Your task to perform on an android device: Empty the shopping cart on walmart. Add "macbook air" to the cart on walmart Image 0: 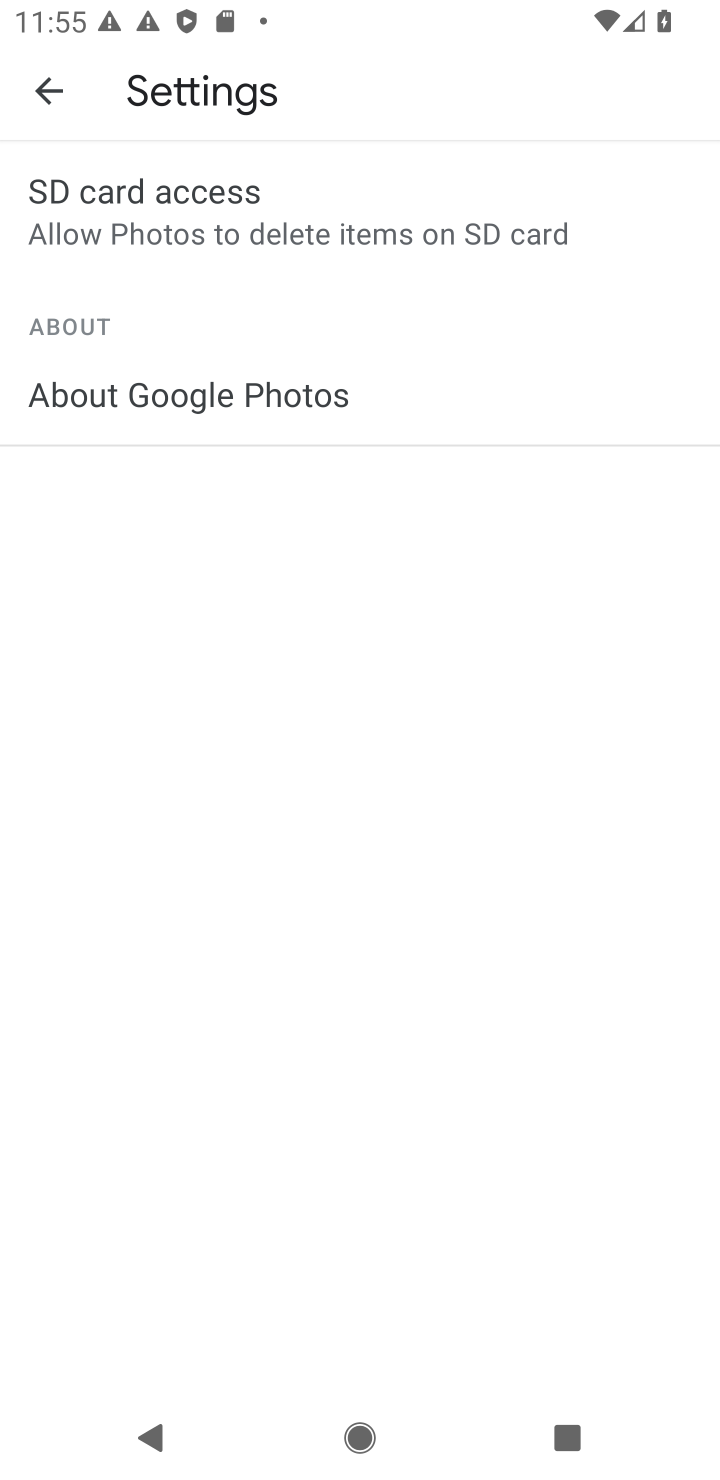
Step 0: press home button
Your task to perform on an android device: Empty the shopping cart on walmart. Add "macbook air" to the cart on walmart Image 1: 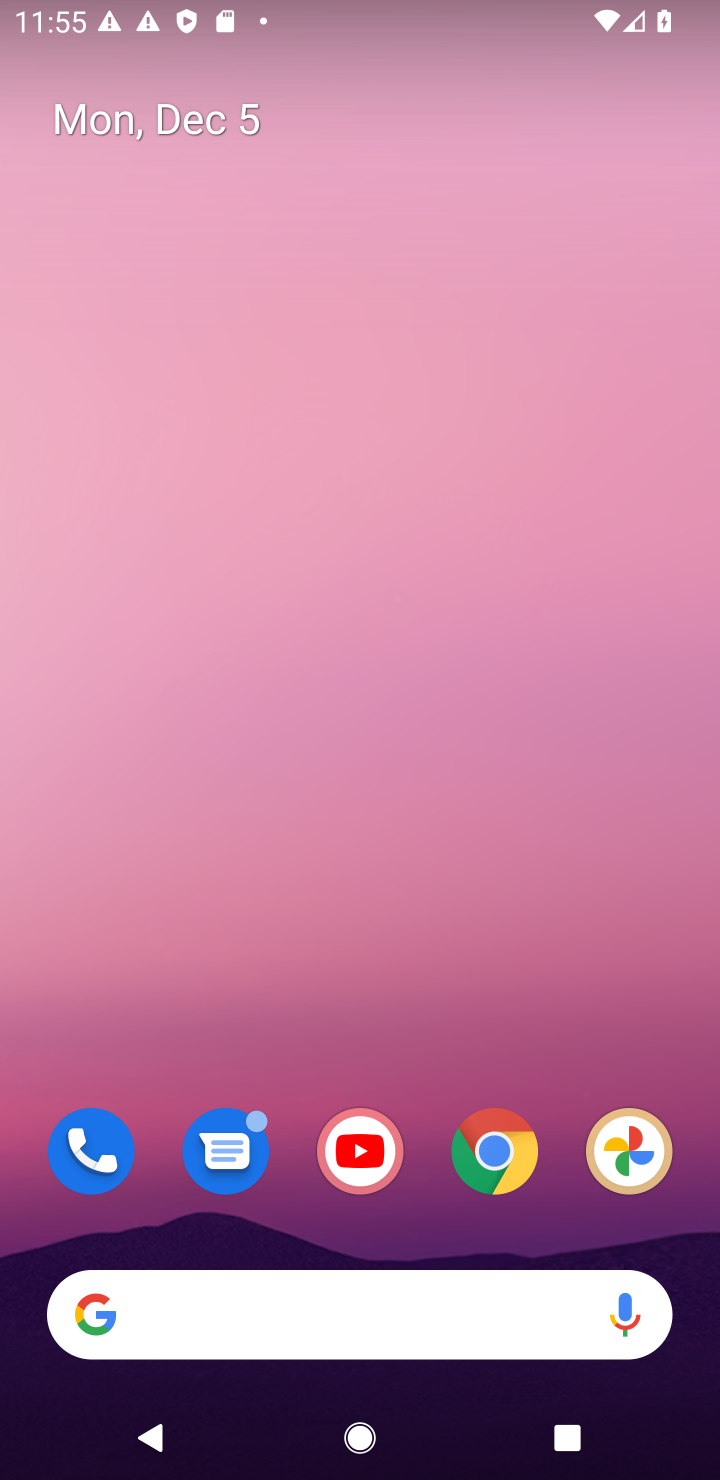
Step 1: click (497, 1149)
Your task to perform on an android device: Empty the shopping cart on walmart. Add "macbook air" to the cart on walmart Image 2: 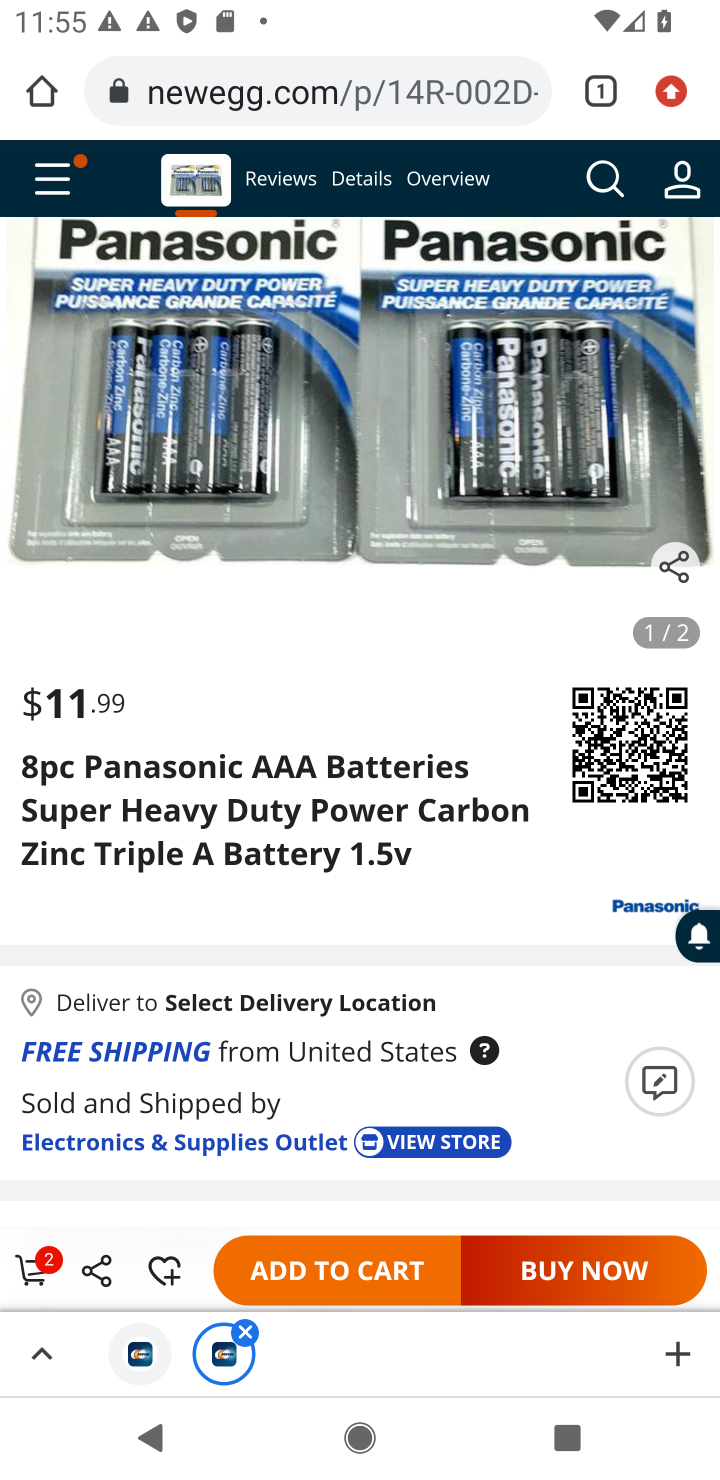
Step 2: click (224, 104)
Your task to perform on an android device: Empty the shopping cart on walmart. Add "macbook air" to the cart on walmart Image 3: 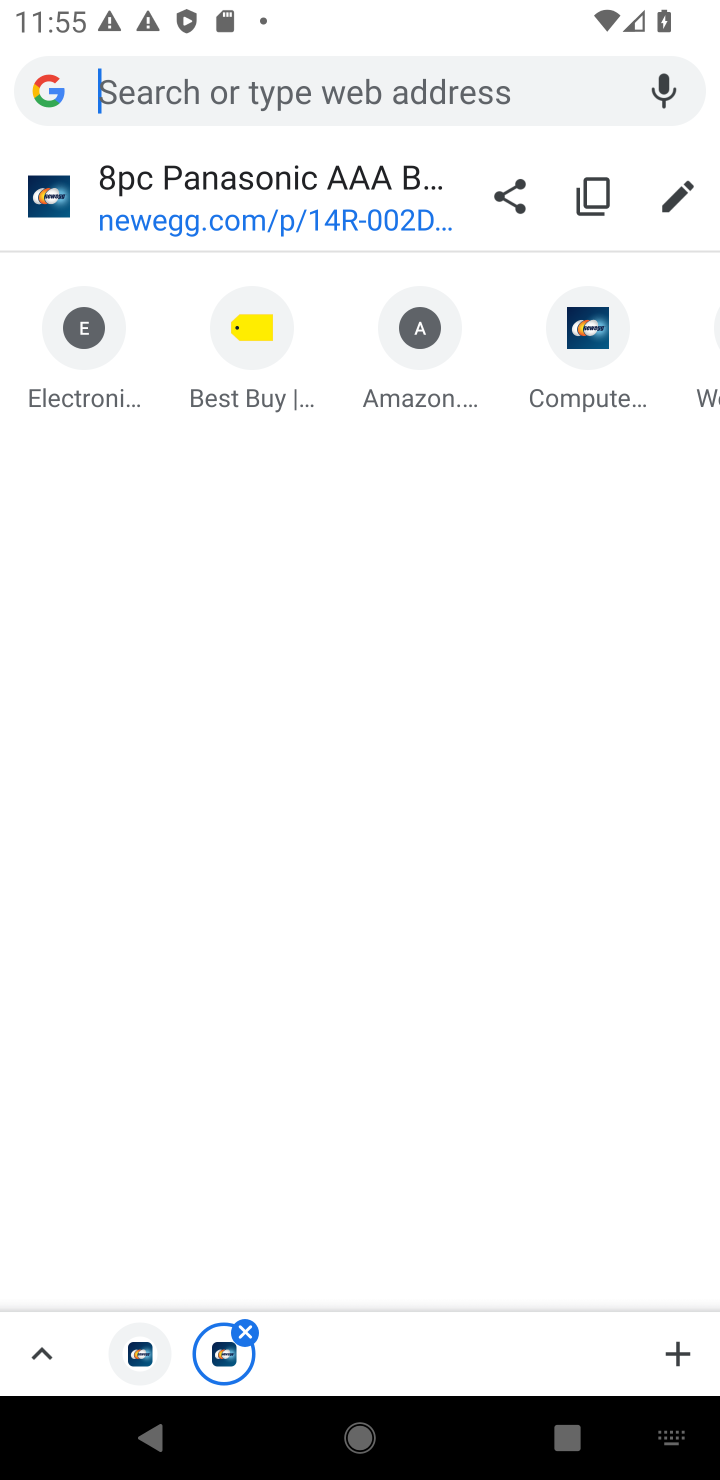
Step 3: type "walmart.com"
Your task to perform on an android device: Empty the shopping cart on walmart. Add "macbook air" to the cart on walmart Image 4: 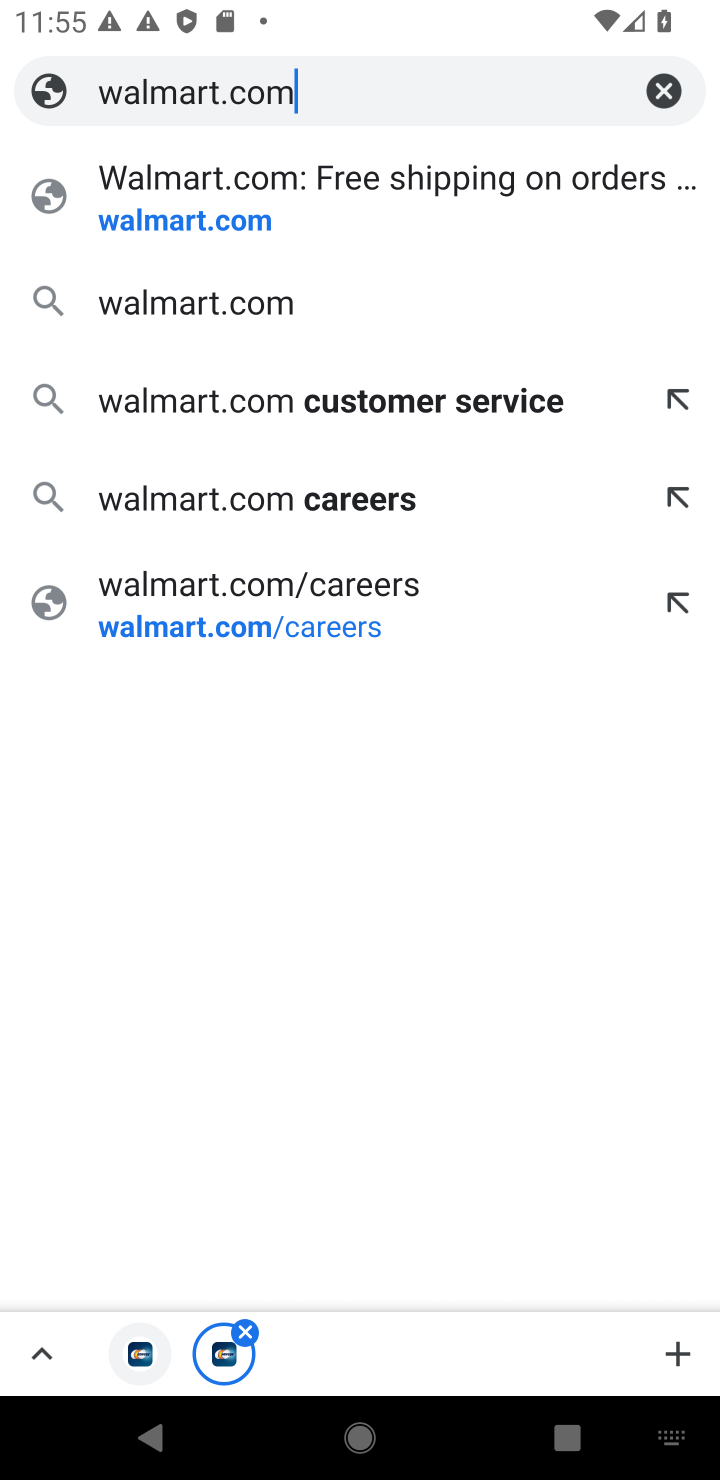
Step 4: click (141, 206)
Your task to perform on an android device: Empty the shopping cart on walmart. Add "macbook air" to the cart on walmart Image 5: 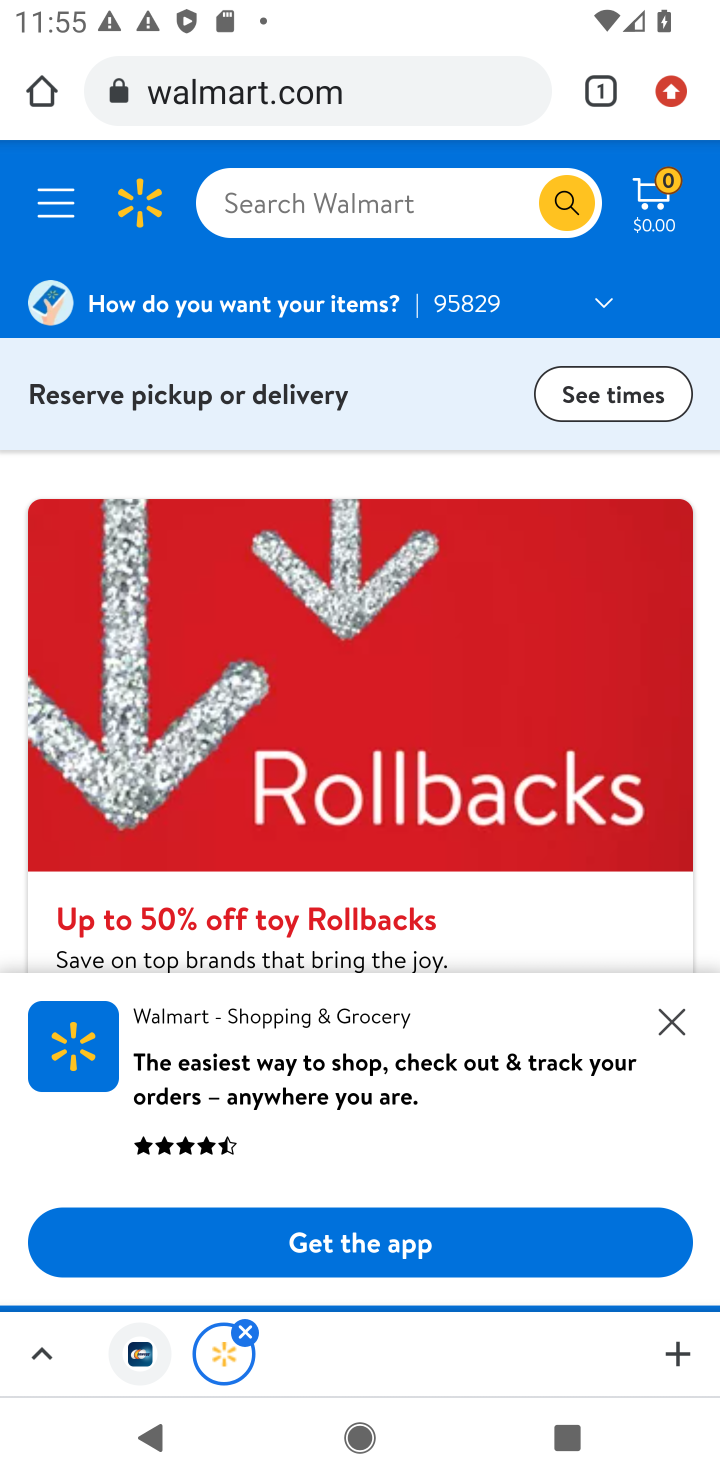
Step 5: click (646, 202)
Your task to perform on an android device: Empty the shopping cart on walmart. Add "macbook air" to the cart on walmart Image 6: 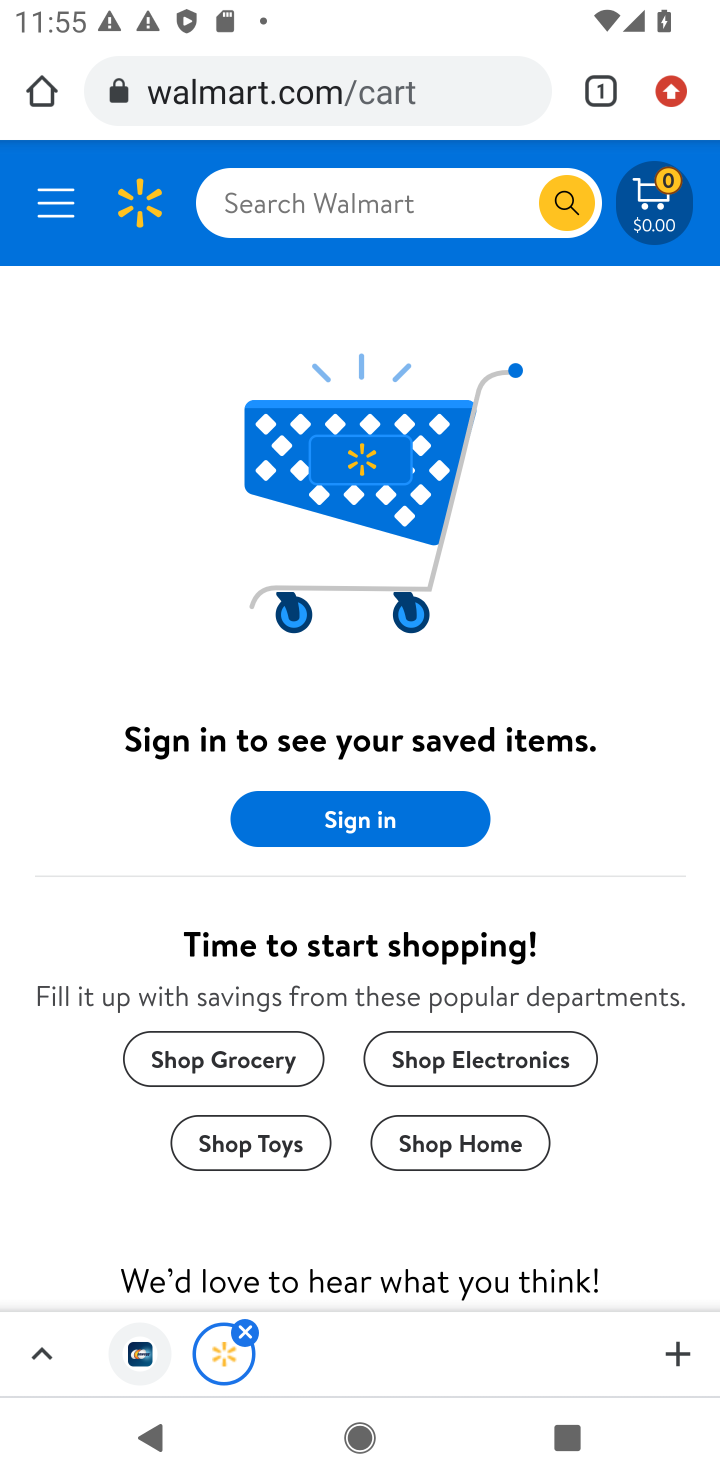
Step 6: click (295, 200)
Your task to perform on an android device: Empty the shopping cart on walmart. Add "macbook air" to the cart on walmart Image 7: 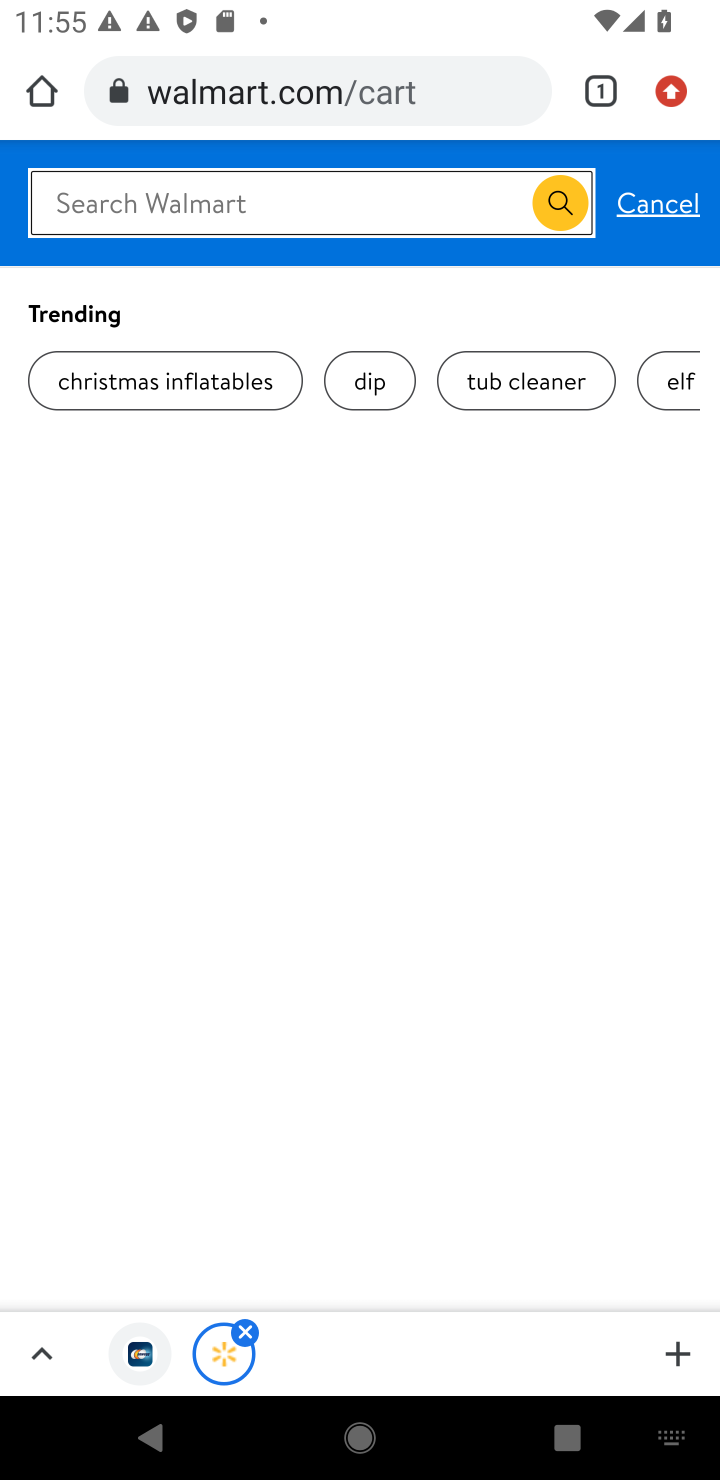
Step 7: type "macbook air"
Your task to perform on an android device: Empty the shopping cart on walmart. Add "macbook air" to the cart on walmart Image 8: 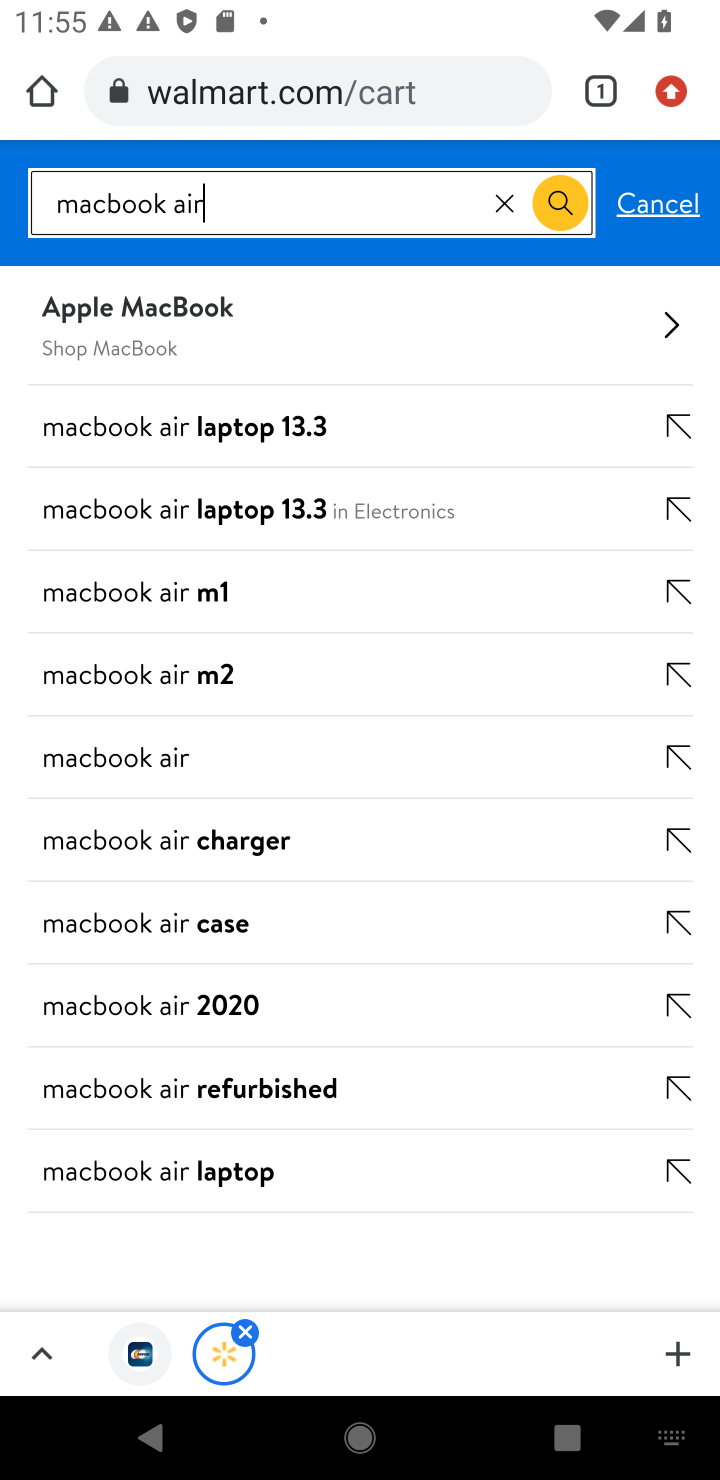
Step 8: click (553, 207)
Your task to perform on an android device: Empty the shopping cart on walmart. Add "macbook air" to the cart on walmart Image 9: 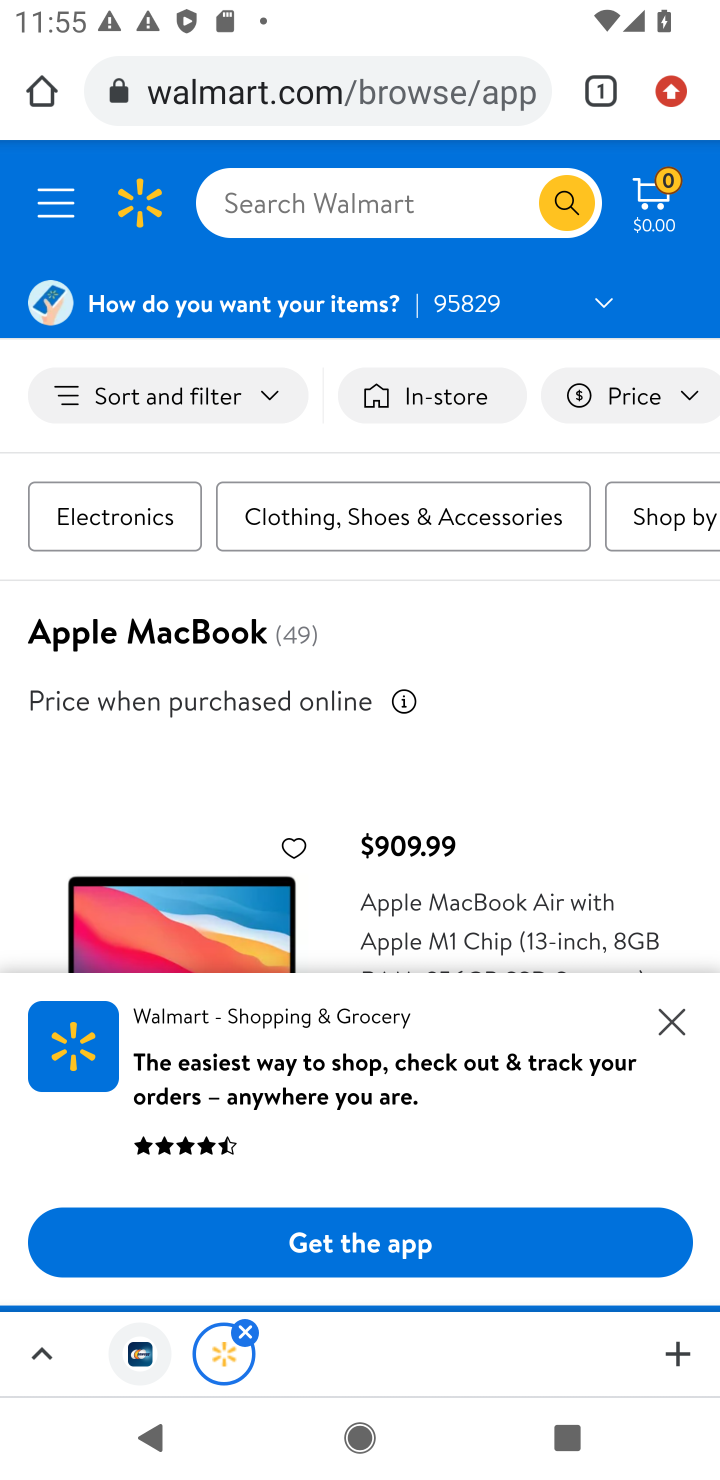
Step 9: click (668, 1034)
Your task to perform on an android device: Empty the shopping cart on walmart. Add "macbook air" to the cart on walmart Image 10: 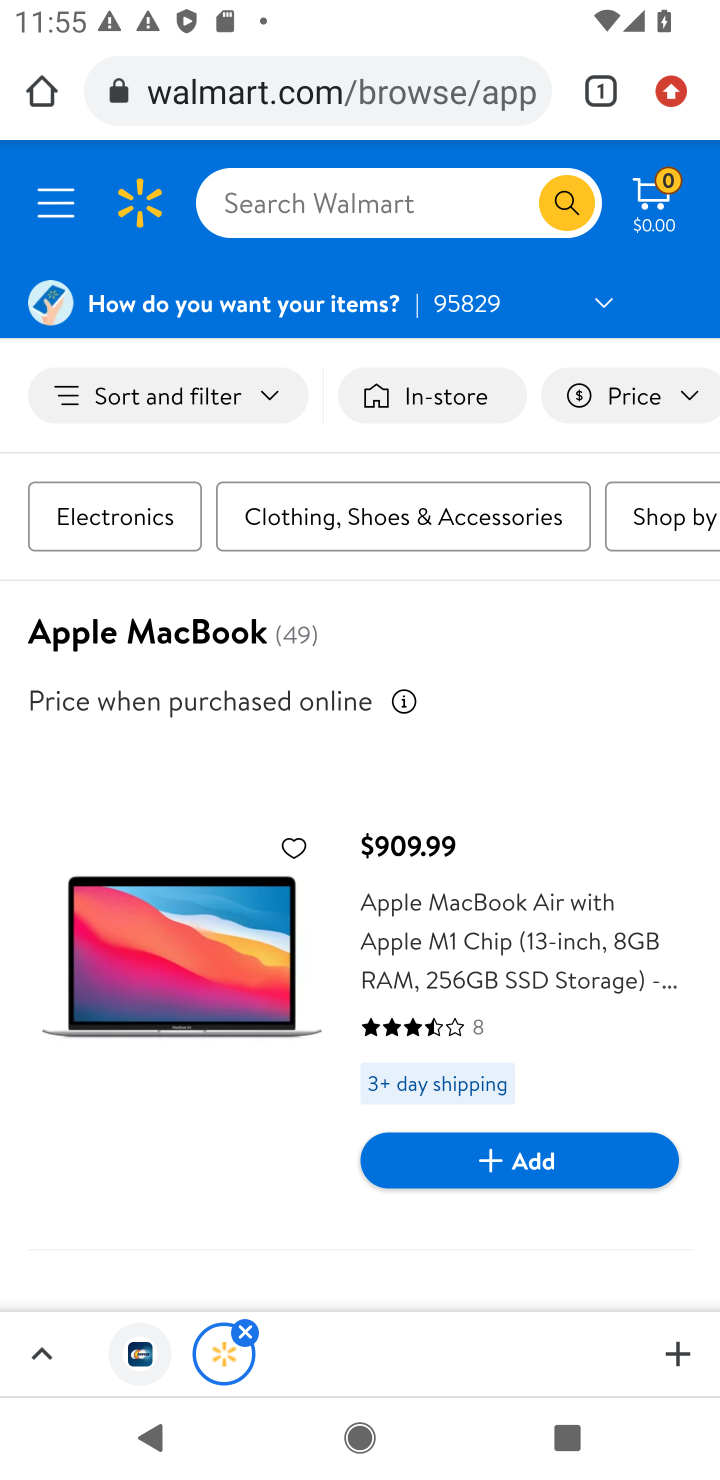
Step 10: click (498, 1167)
Your task to perform on an android device: Empty the shopping cart on walmart. Add "macbook air" to the cart on walmart Image 11: 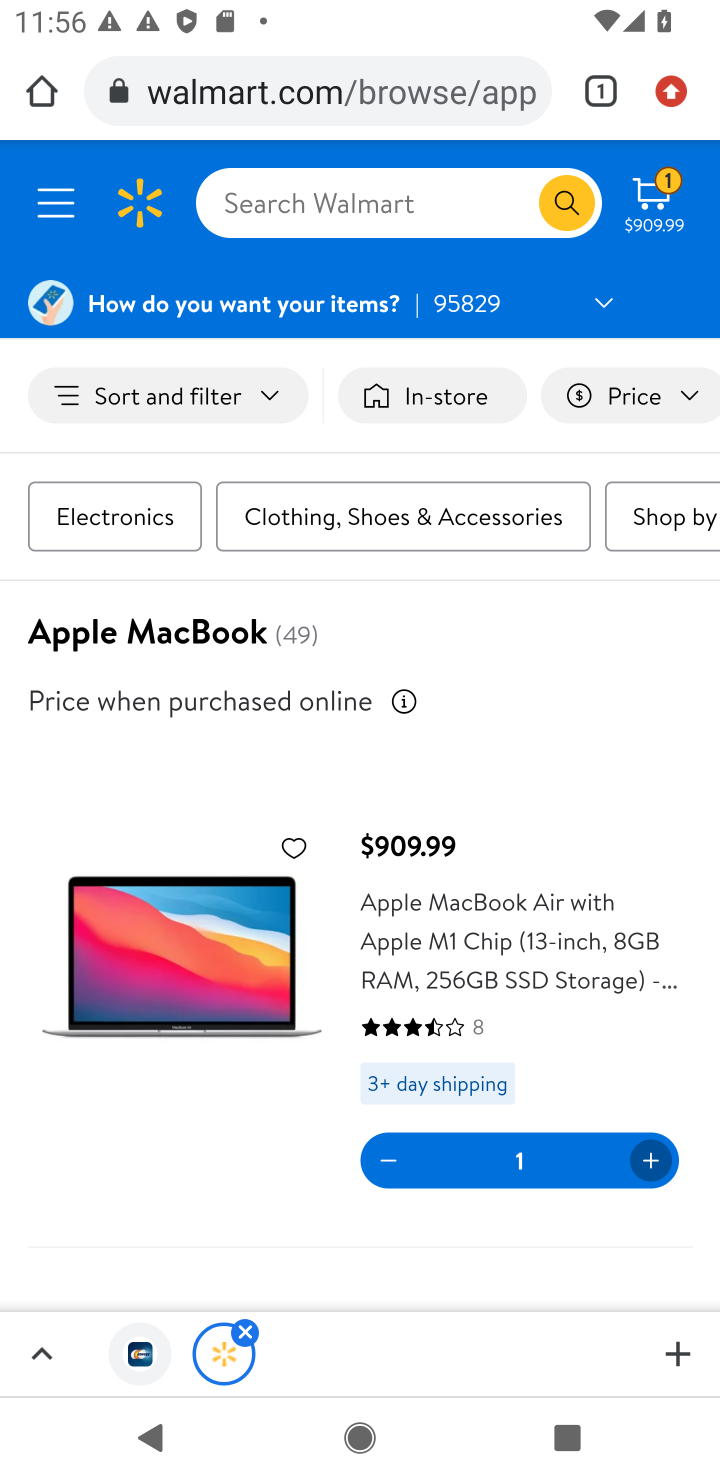
Step 11: task complete